Your task to perform on an android device: turn on improve location accuracy Image 0: 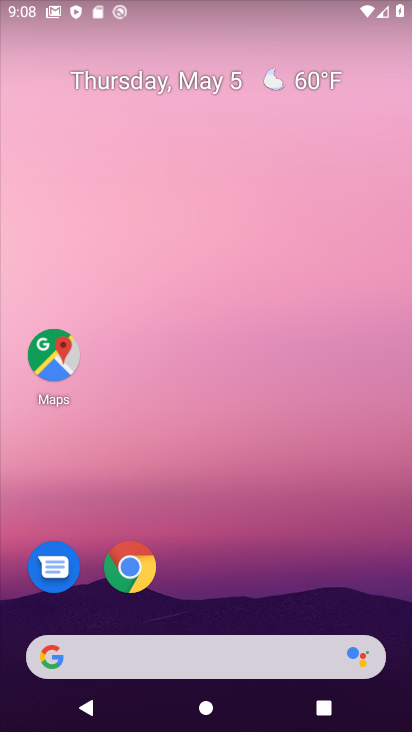
Step 0: drag from (215, 575) to (215, 105)
Your task to perform on an android device: turn on improve location accuracy Image 1: 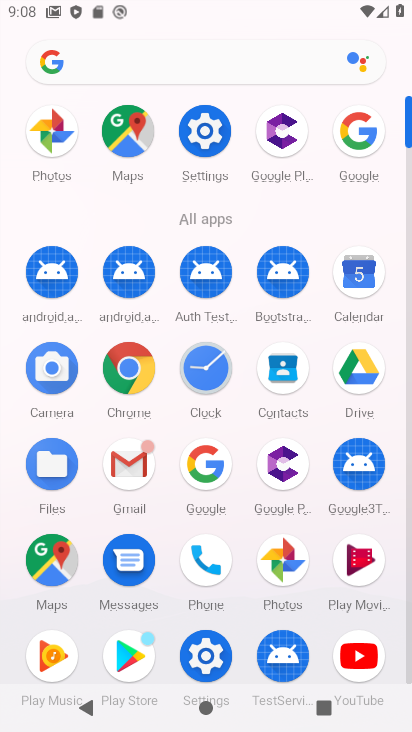
Step 1: click (215, 118)
Your task to perform on an android device: turn on improve location accuracy Image 2: 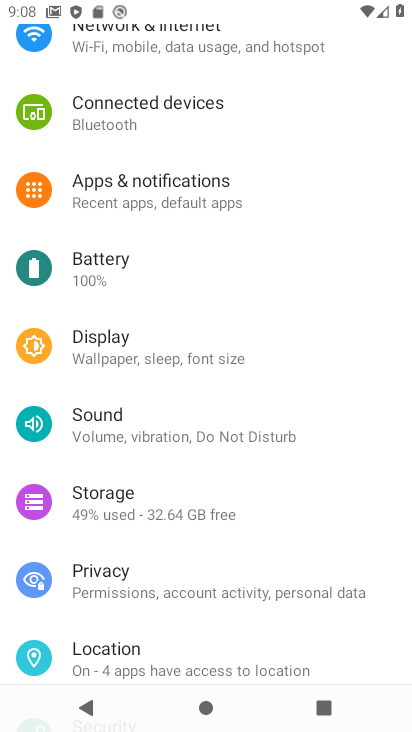
Step 2: click (149, 644)
Your task to perform on an android device: turn on improve location accuracy Image 3: 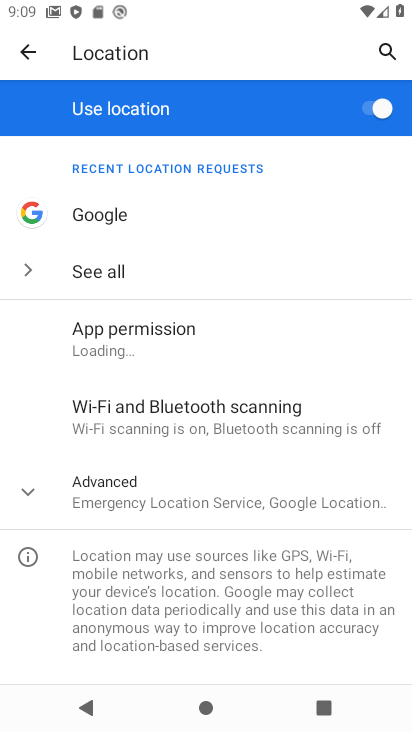
Step 3: click (140, 480)
Your task to perform on an android device: turn on improve location accuracy Image 4: 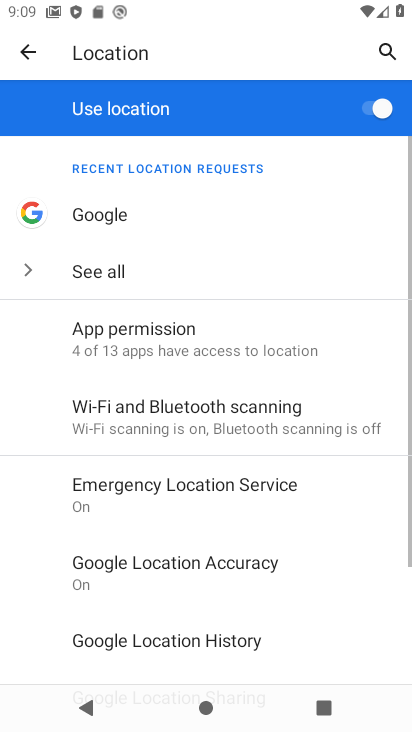
Step 4: click (204, 581)
Your task to perform on an android device: turn on improve location accuracy Image 5: 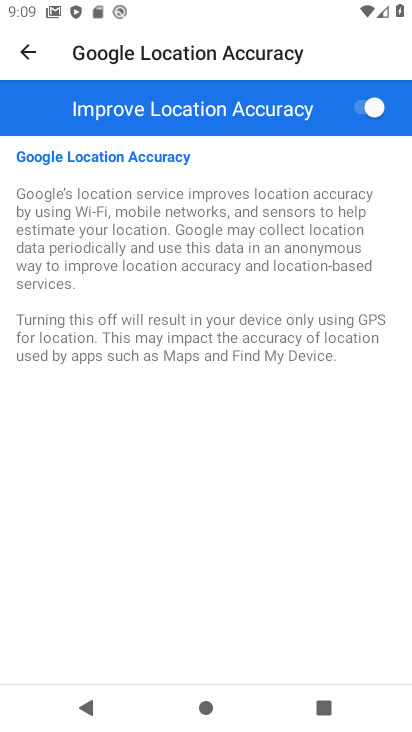
Step 5: task complete